Your task to perform on an android device: Go to settings Image 0: 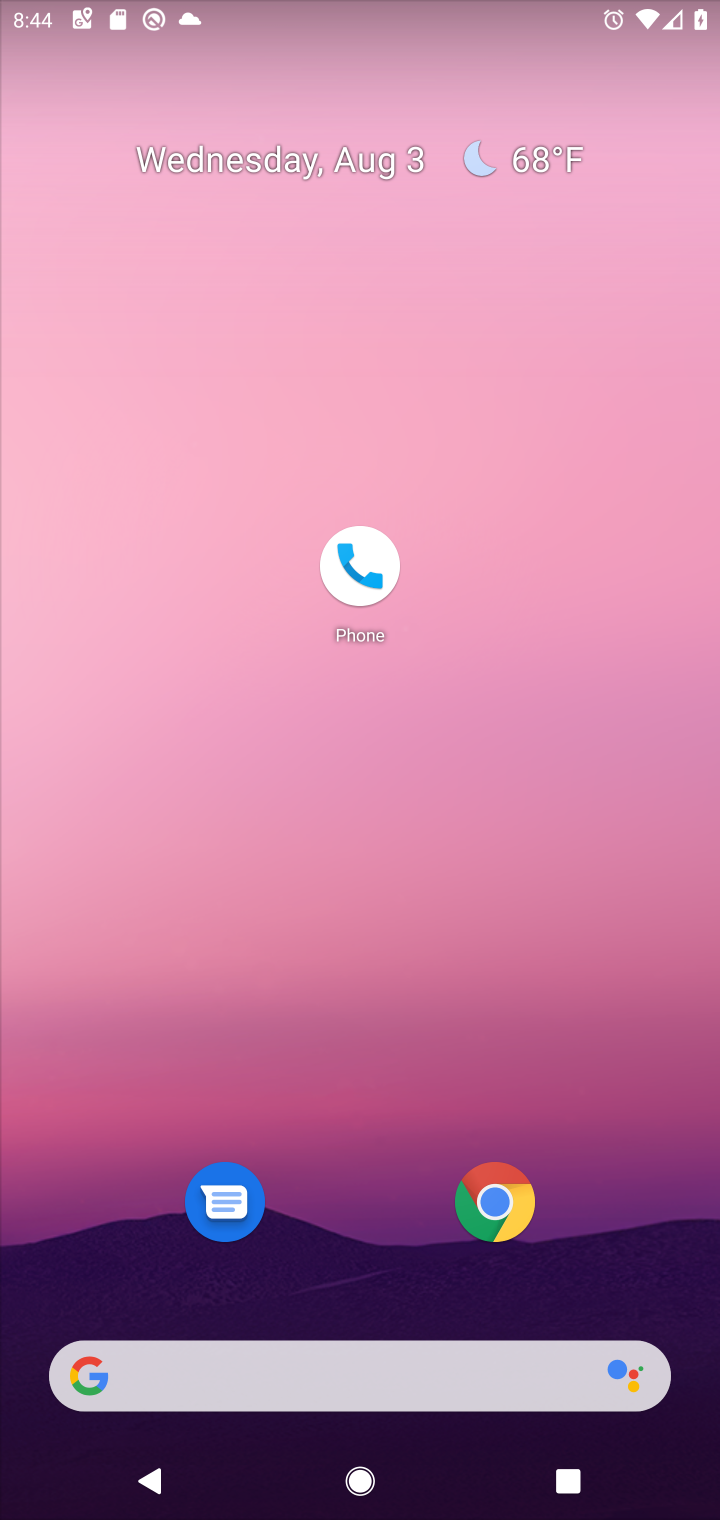
Step 0: press home button
Your task to perform on an android device: Go to settings Image 1: 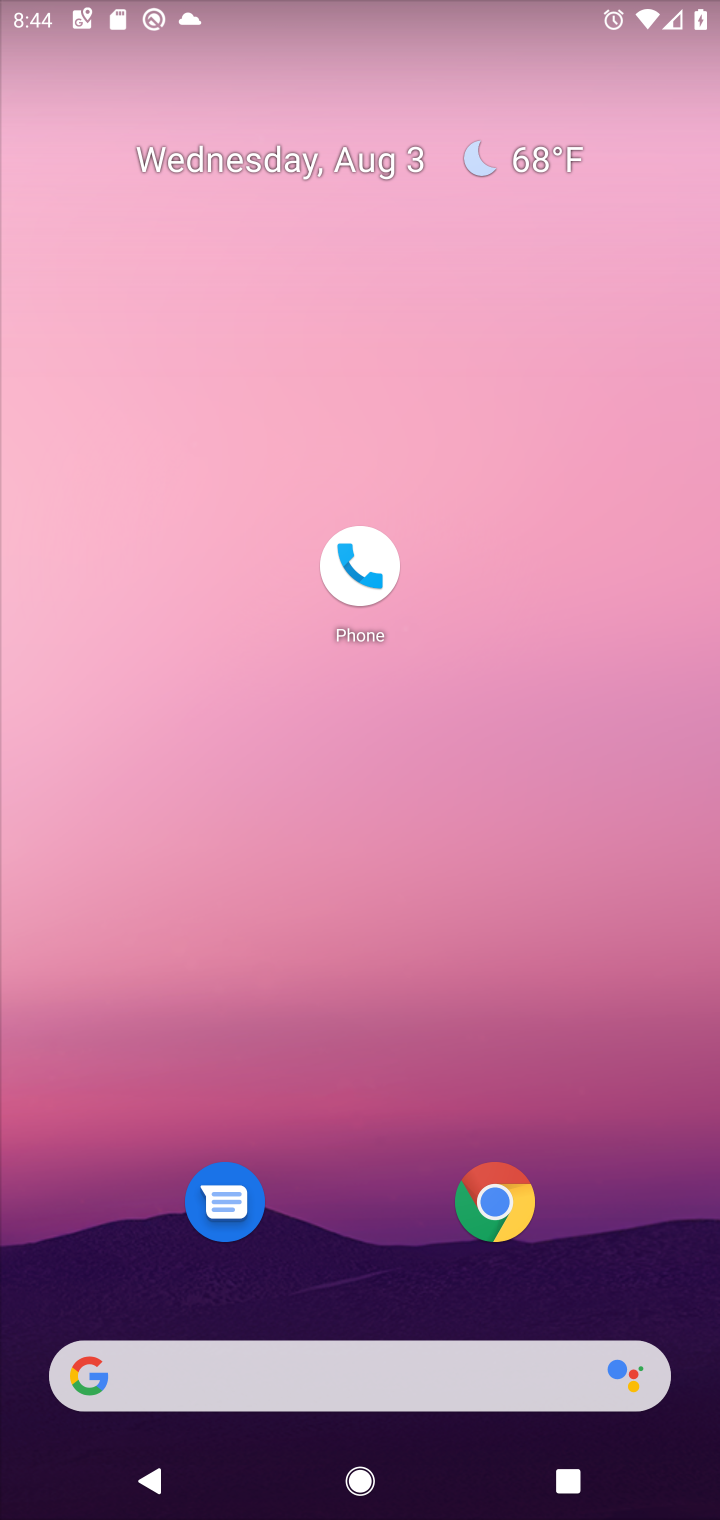
Step 1: drag from (276, 1372) to (718, 66)
Your task to perform on an android device: Go to settings Image 2: 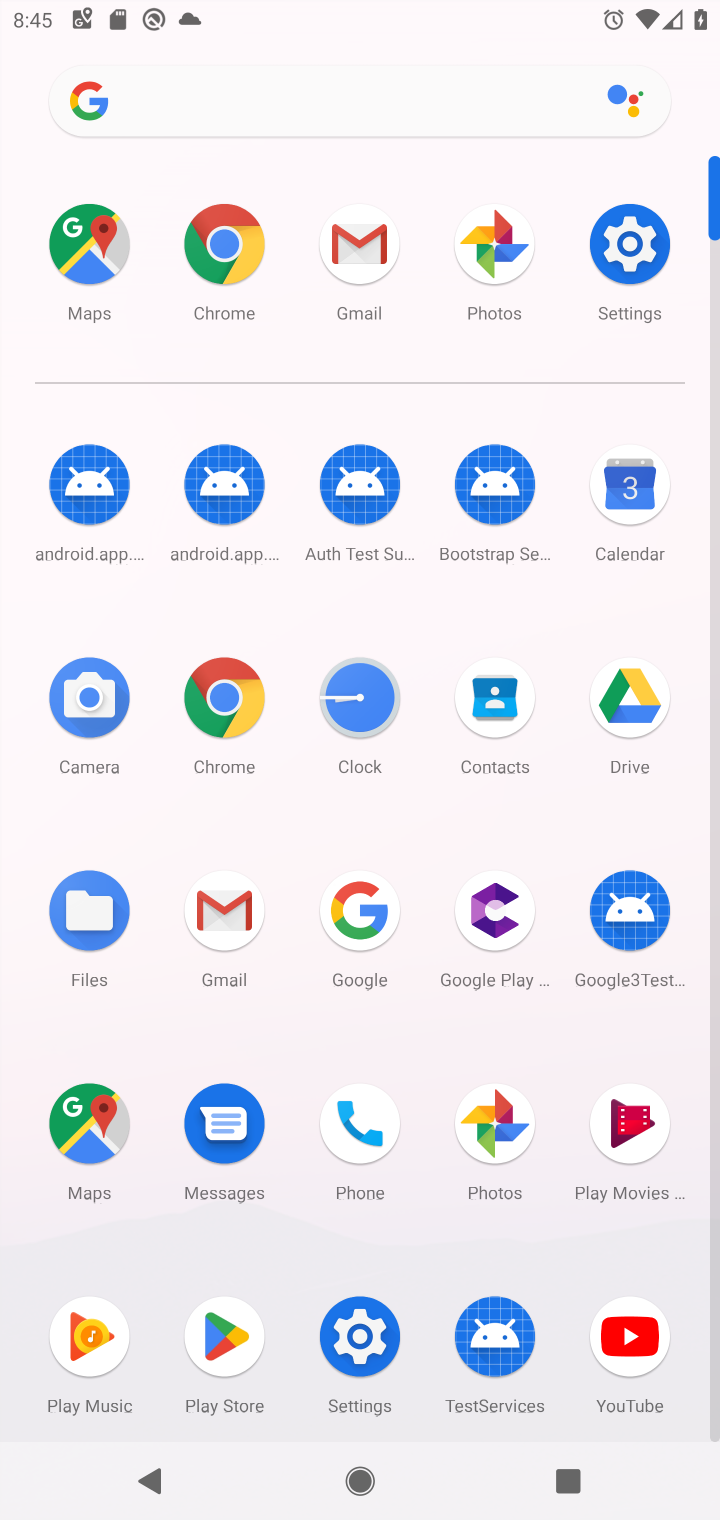
Step 2: click (630, 245)
Your task to perform on an android device: Go to settings Image 3: 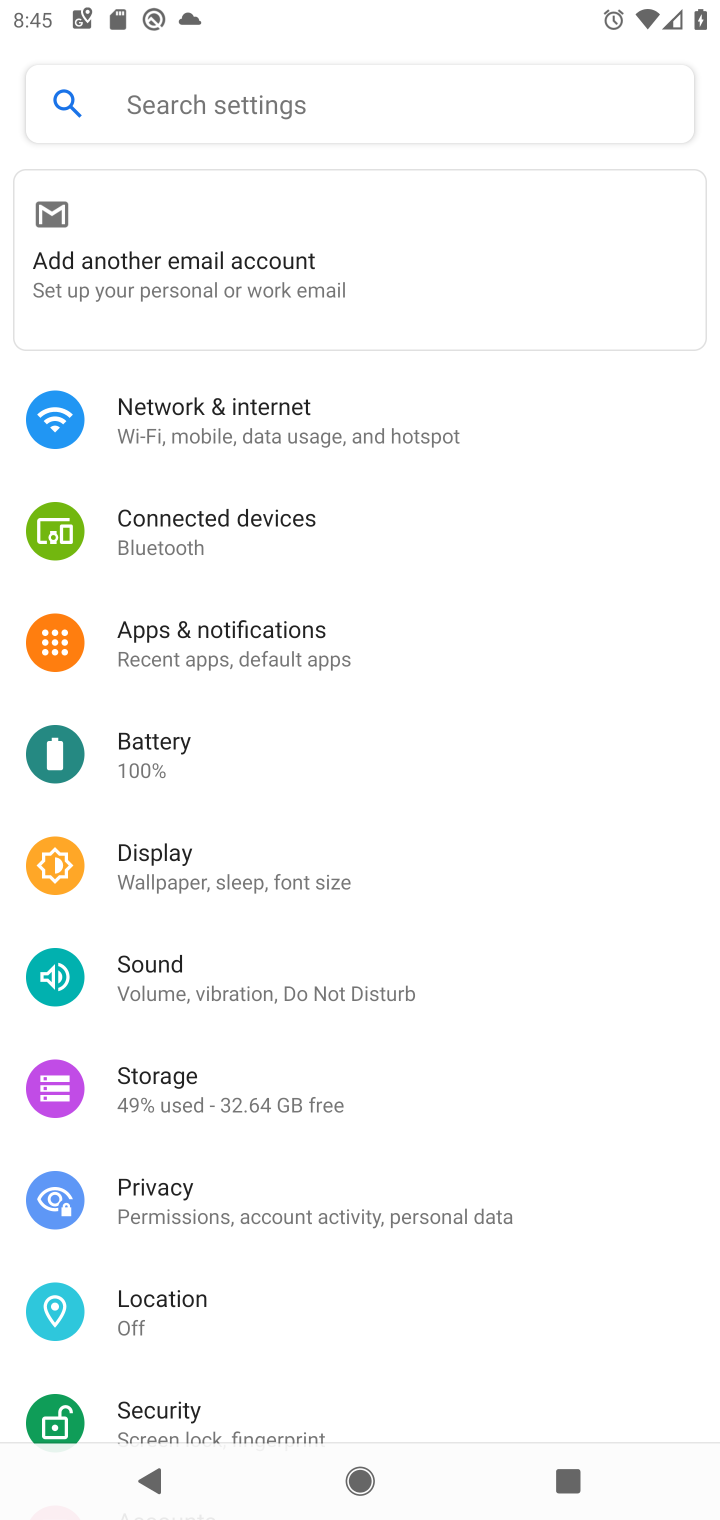
Step 3: task complete